Your task to perform on an android device: Open battery settings Image 0: 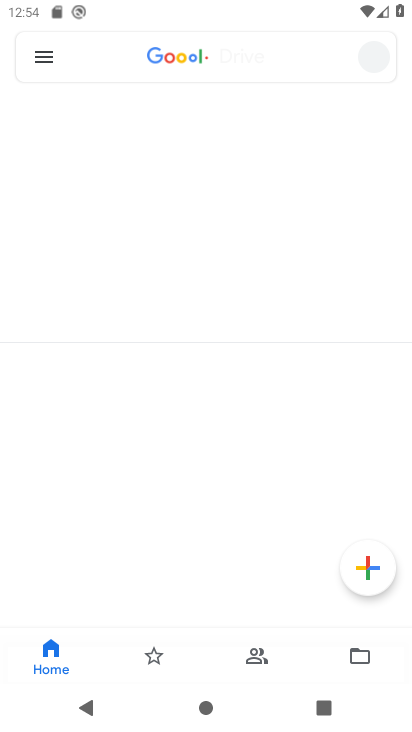
Step 0: press home button
Your task to perform on an android device: Open battery settings Image 1: 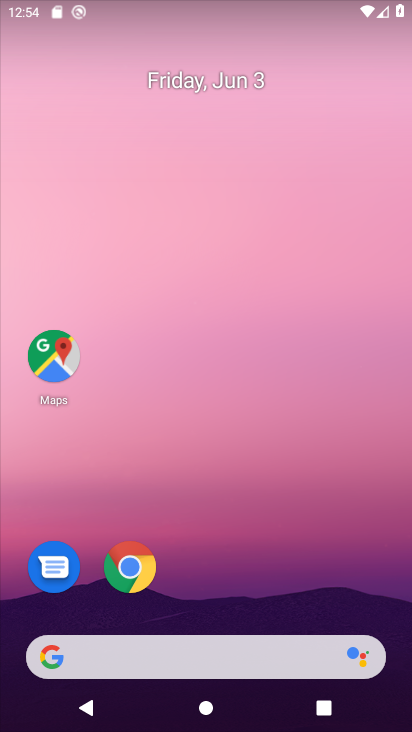
Step 1: drag from (220, 593) to (205, 263)
Your task to perform on an android device: Open battery settings Image 2: 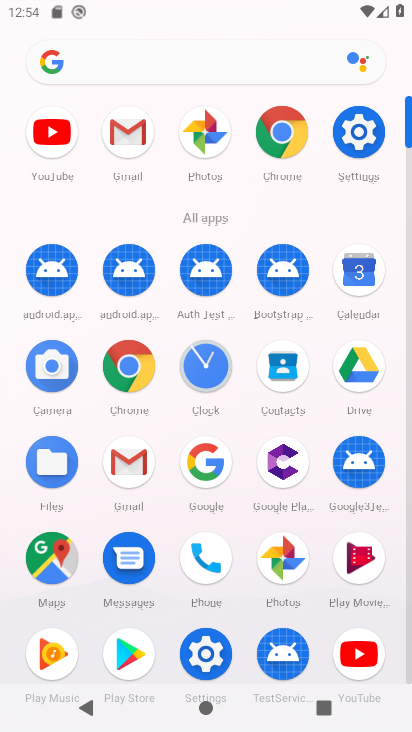
Step 2: click (369, 136)
Your task to perform on an android device: Open battery settings Image 3: 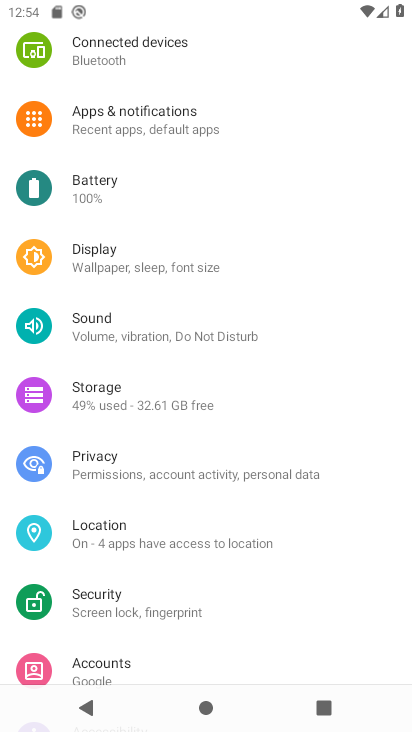
Step 3: click (120, 189)
Your task to perform on an android device: Open battery settings Image 4: 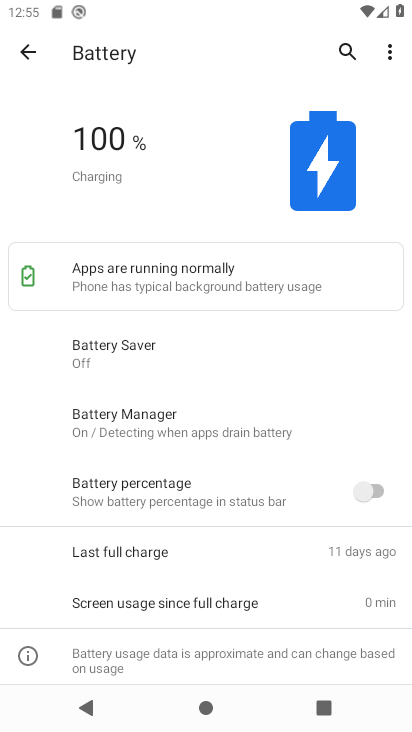
Step 4: task complete